Your task to perform on an android device: find which apps use the phone's location Image 0: 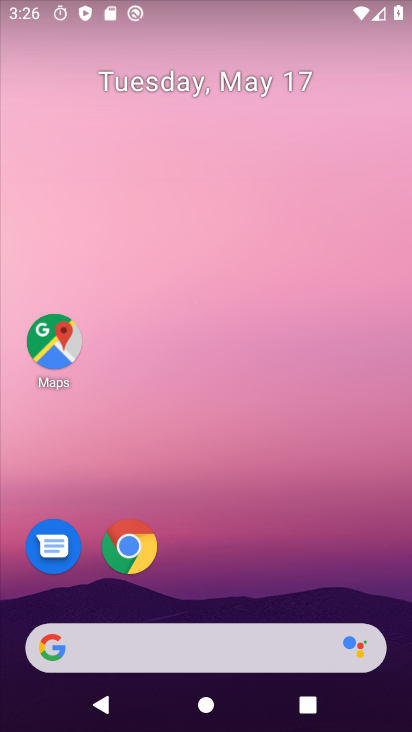
Step 0: drag from (214, 662) to (246, 145)
Your task to perform on an android device: find which apps use the phone's location Image 1: 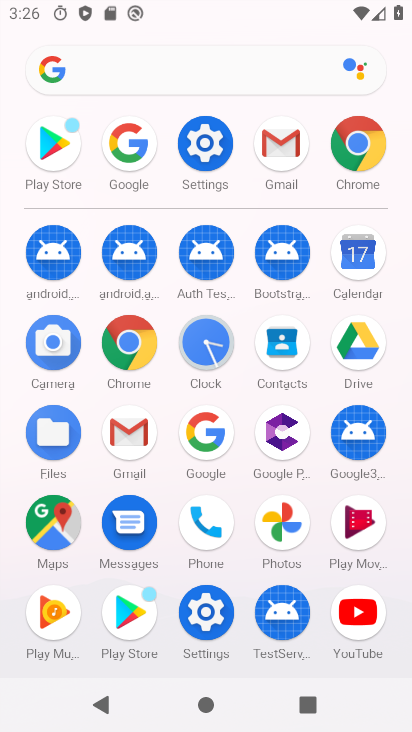
Step 1: click (213, 176)
Your task to perform on an android device: find which apps use the phone's location Image 2: 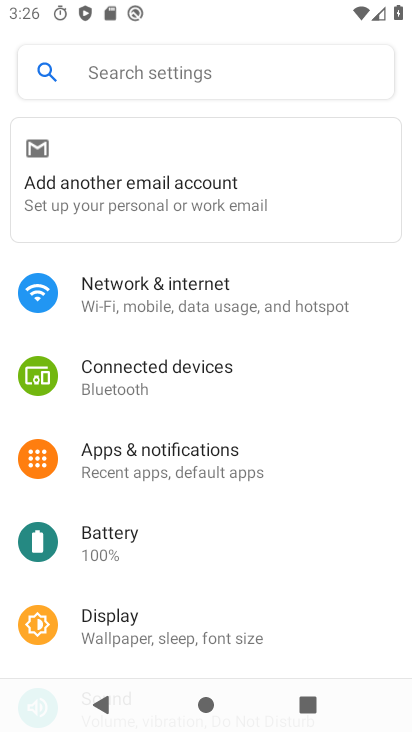
Step 2: drag from (181, 447) to (196, 305)
Your task to perform on an android device: find which apps use the phone's location Image 3: 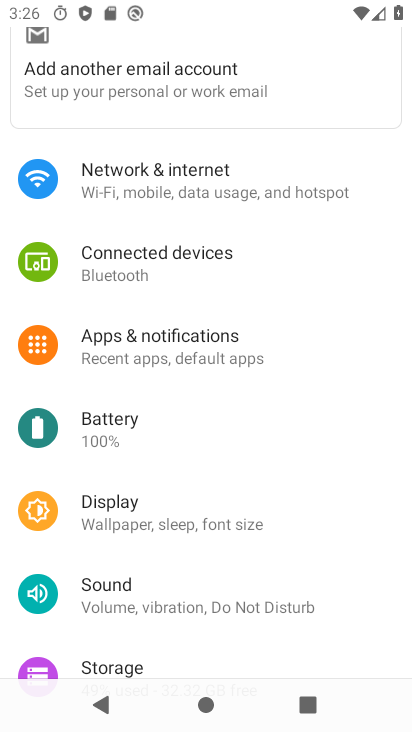
Step 3: drag from (176, 480) to (176, 416)
Your task to perform on an android device: find which apps use the phone's location Image 4: 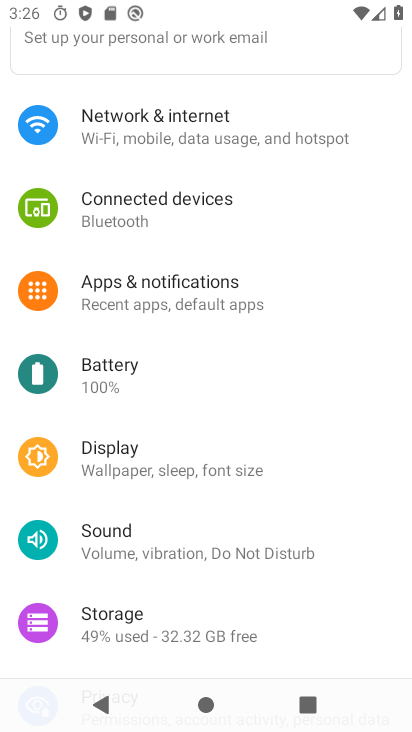
Step 4: drag from (137, 572) to (170, 307)
Your task to perform on an android device: find which apps use the phone's location Image 5: 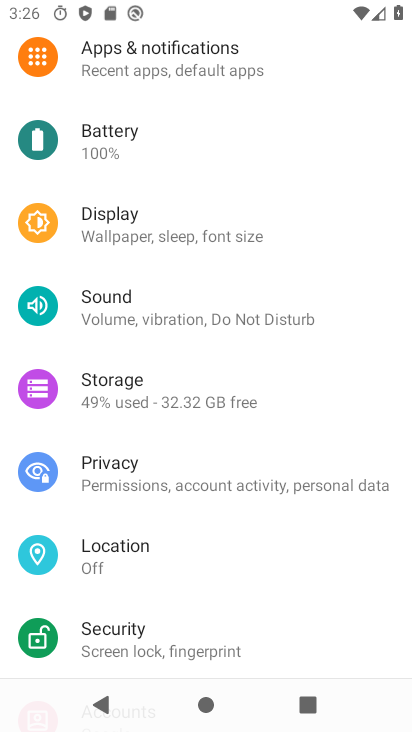
Step 5: click (138, 549)
Your task to perform on an android device: find which apps use the phone's location Image 6: 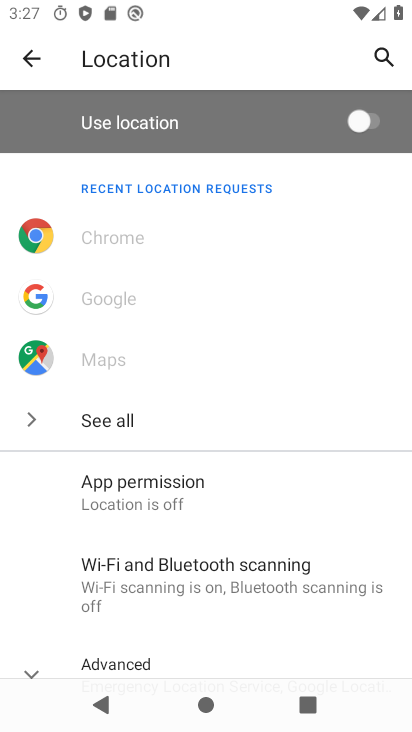
Step 6: drag from (144, 504) to (159, 390)
Your task to perform on an android device: find which apps use the phone's location Image 7: 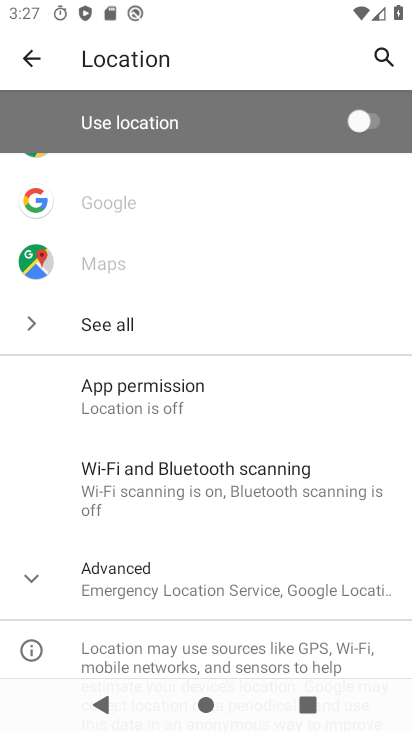
Step 7: click (154, 399)
Your task to perform on an android device: find which apps use the phone's location Image 8: 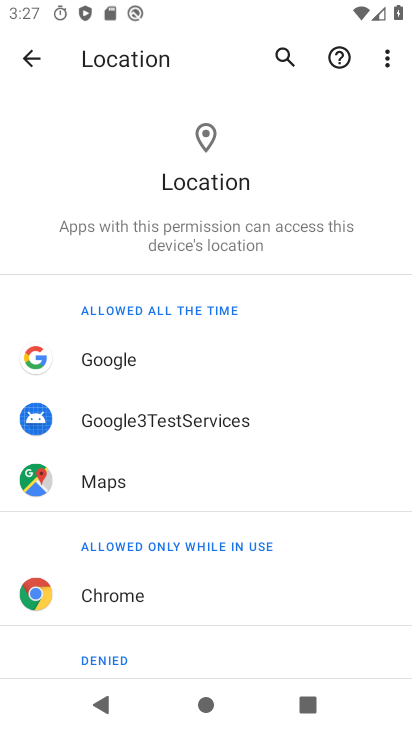
Step 8: task complete